Your task to perform on an android device: Open ESPN.com Image 0: 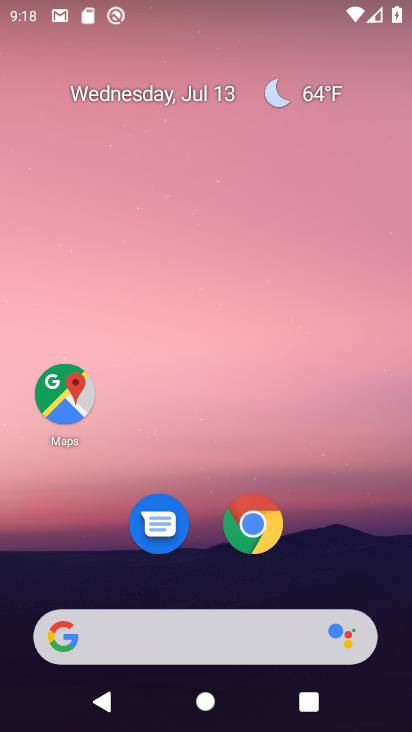
Step 0: click (233, 534)
Your task to perform on an android device: Open ESPN.com Image 1: 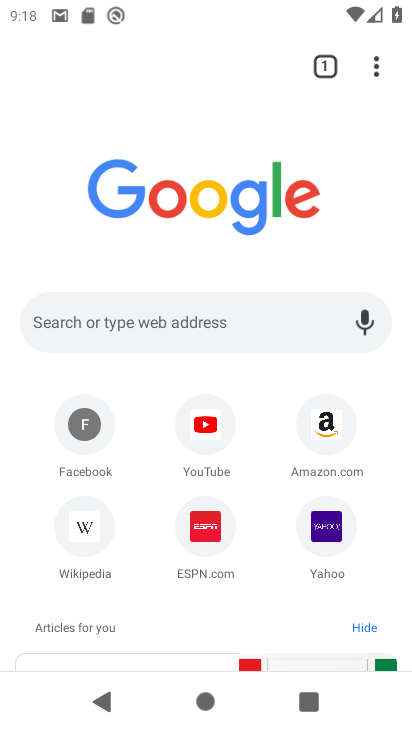
Step 1: click (201, 527)
Your task to perform on an android device: Open ESPN.com Image 2: 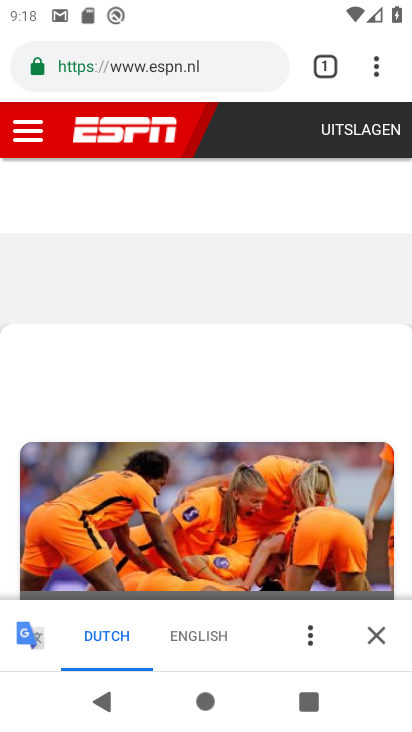
Step 2: task complete